Your task to perform on an android device: toggle airplane mode Image 0: 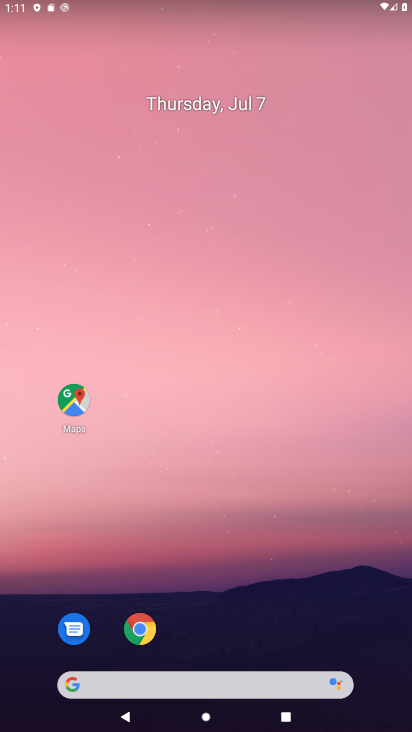
Step 0: drag from (278, 592) to (336, 134)
Your task to perform on an android device: toggle airplane mode Image 1: 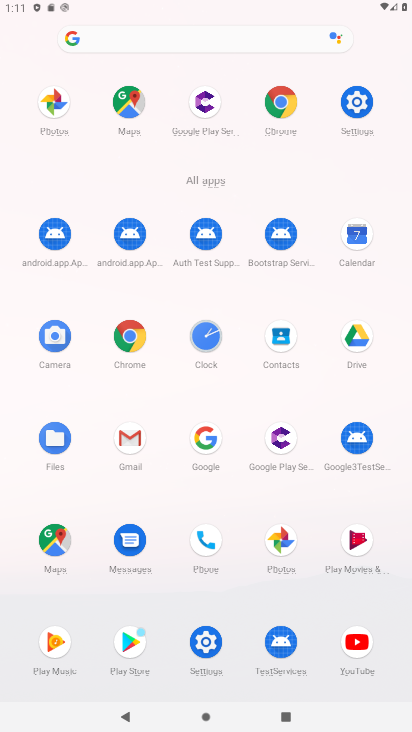
Step 1: drag from (197, 417) to (167, 594)
Your task to perform on an android device: toggle airplane mode Image 2: 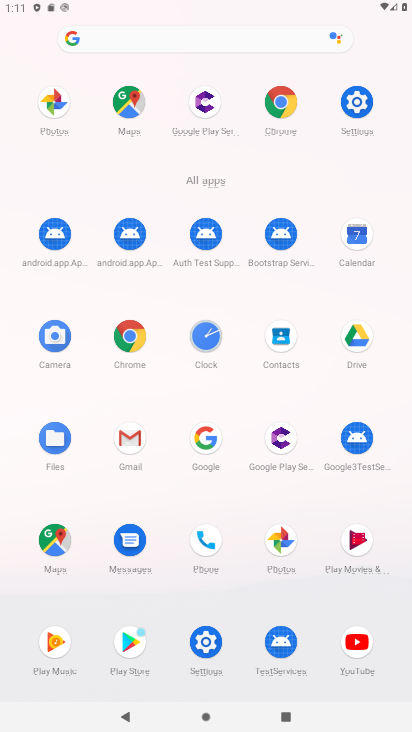
Step 2: drag from (191, 4) to (162, 563)
Your task to perform on an android device: toggle airplane mode Image 3: 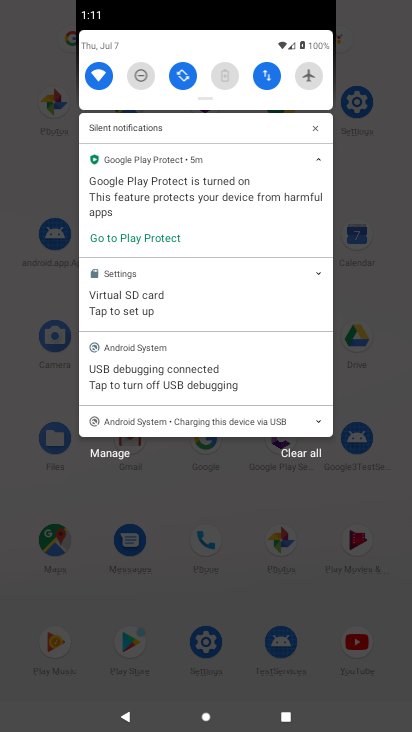
Step 3: click (307, 68)
Your task to perform on an android device: toggle airplane mode Image 4: 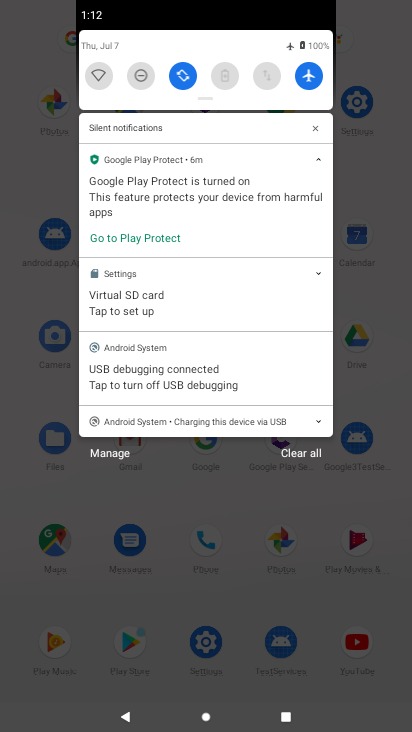
Step 4: task complete